Your task to perform on an android device: Show me popular videos on Youtube Image 0: 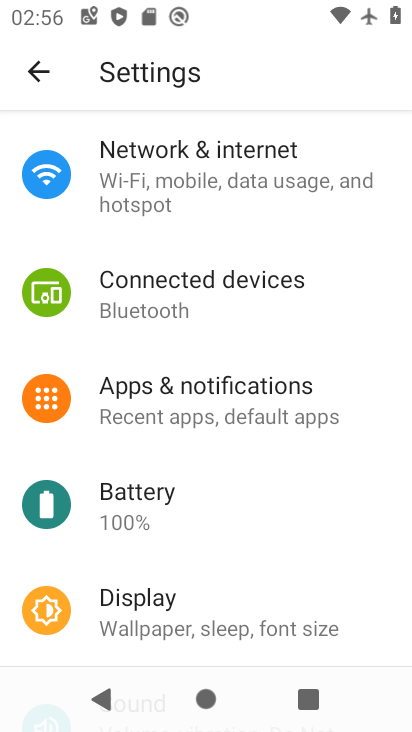
Step 0: press home button
Your task to perform on an android device: Show me popular videos on Youtube Image 1: 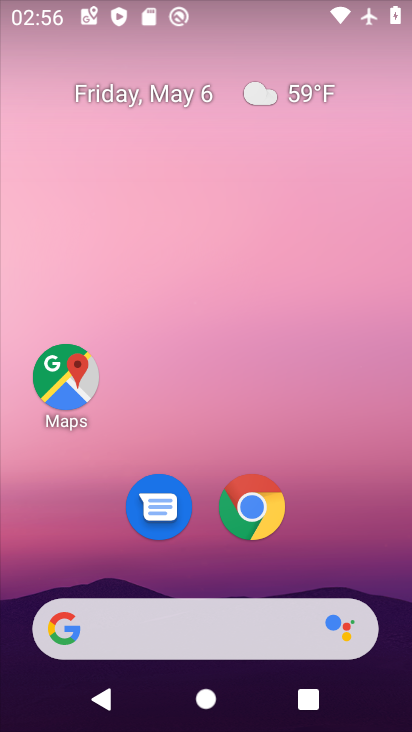
Step 1: drag from (352, 509) to (357, 115)
Your task to perform on an android device: Show me popular videos on Youtube Image 2: 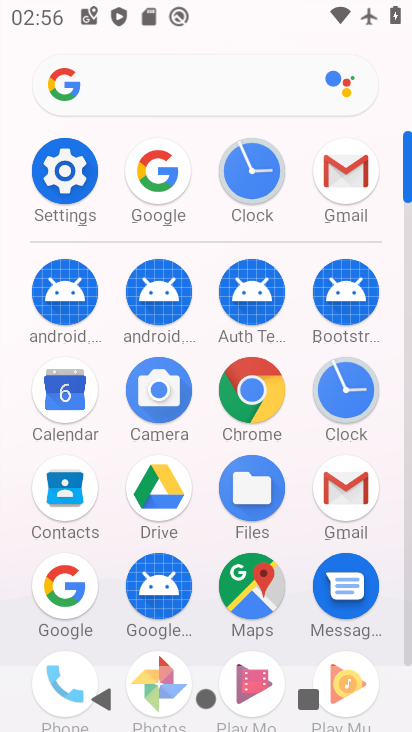
Step 2: drag from (297, 631) to (306, 218)
Your task to perform on an android device: Show me popular videos on Youtube Image 3: 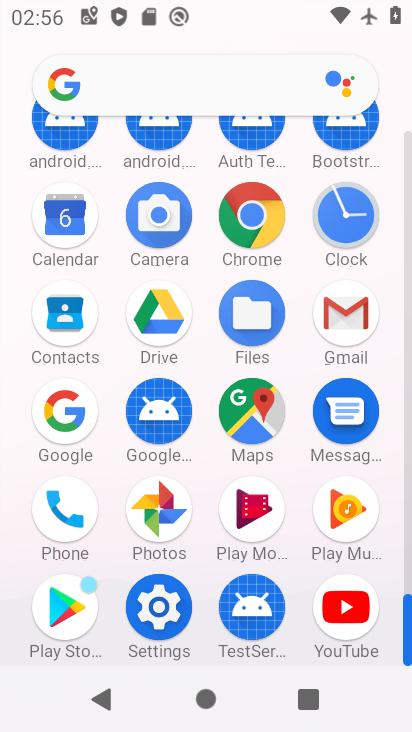
Step 3: click (350, 608)
Your task to perform on an android device: Show me popular videos on Youtube Image 4: 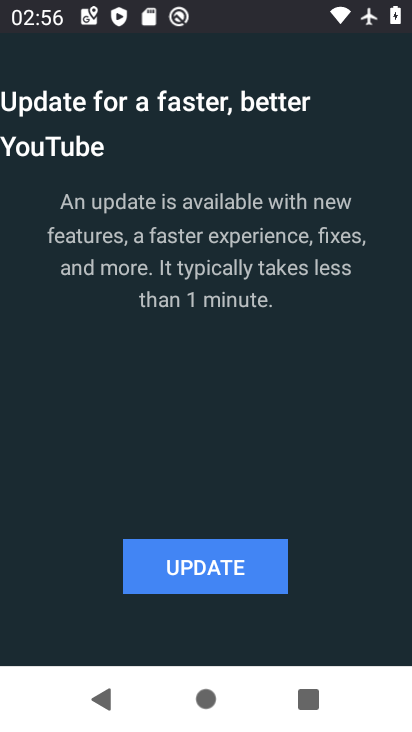
Step 4: click (205, 571)
Your task to perform on an android device: Show me popular videos on Youtube Image 5: 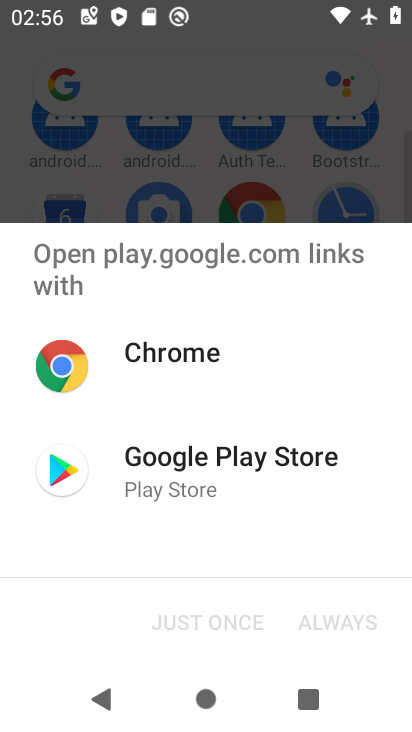
Step 5: click (218, 480)
Your task to perform on an android device: Show me popular videos on Youtube Image 6: 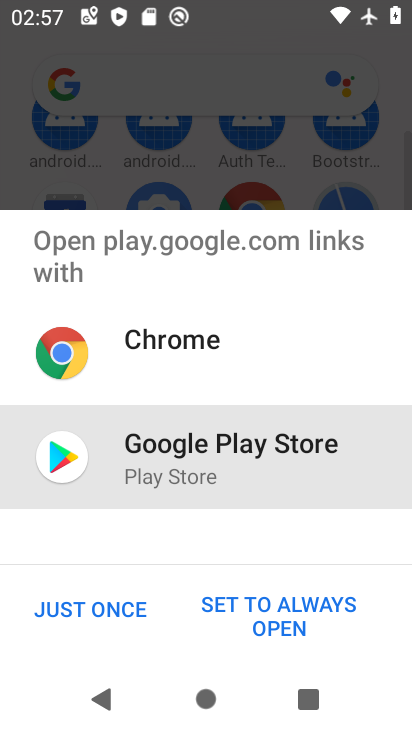
Step 6: click (103, 608)
Your task to perform on an android device: Show me popular videos on Youtube Image 7: 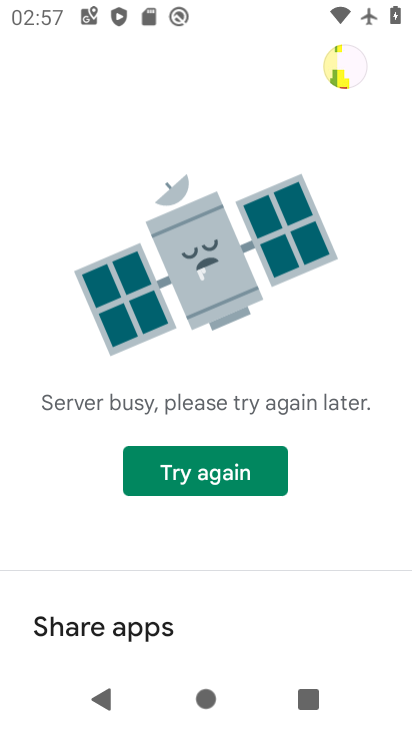
Step 7: task complete